Your task to perform on an android device: When is my next meeting? Image 0: 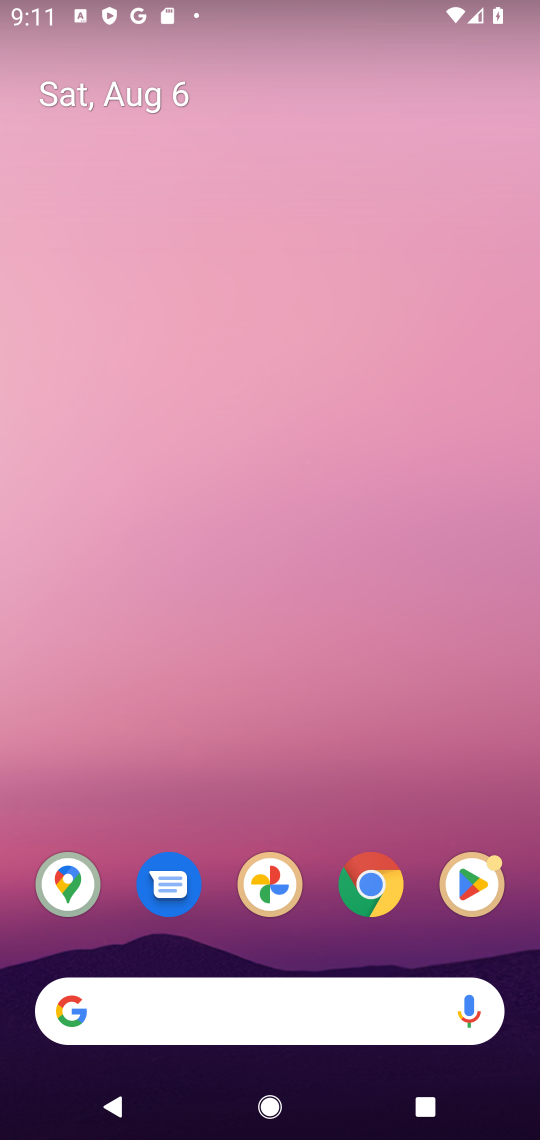
Step 0: drag from (425, 937) to (379, 47)
Your task to perform on an android device: When is my next meeting? Image 1: 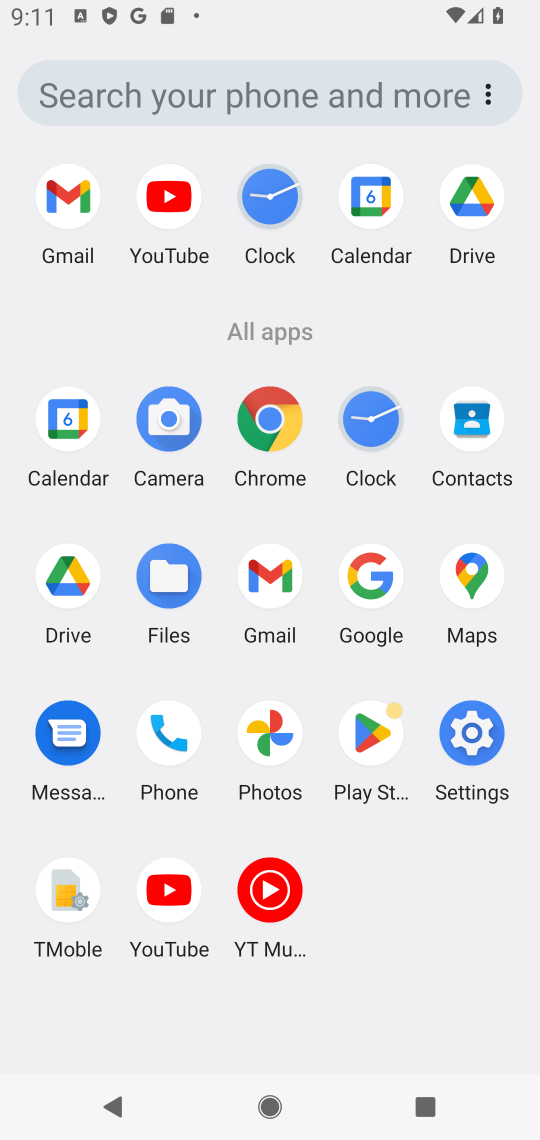
Step 1: click (67, 417)
Your task to perform on an android device: When is my next meeting? Image 2: 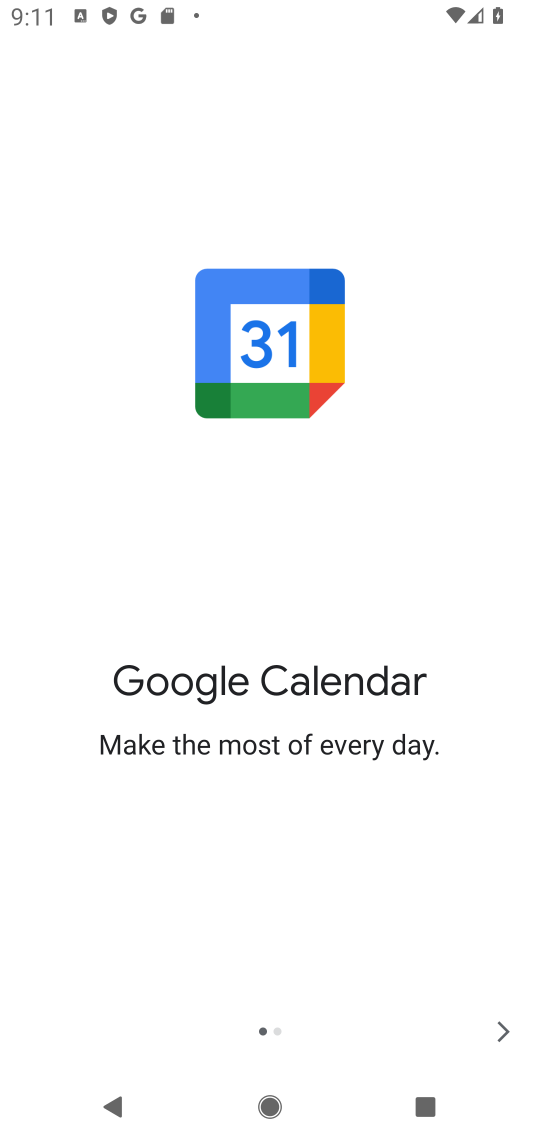
Step 2: click (501, 1025)
Your task to perform on an android device: When is my next meeting? Image 3: 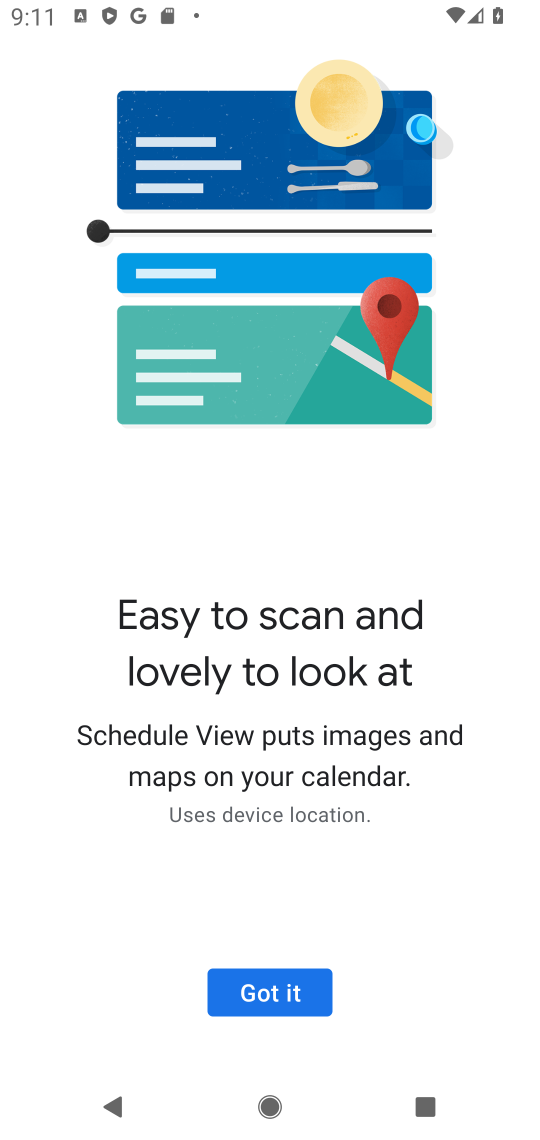
Step 3: click (263, 982)
Your task to perform on an android device: When is my next meeting? Image 4: 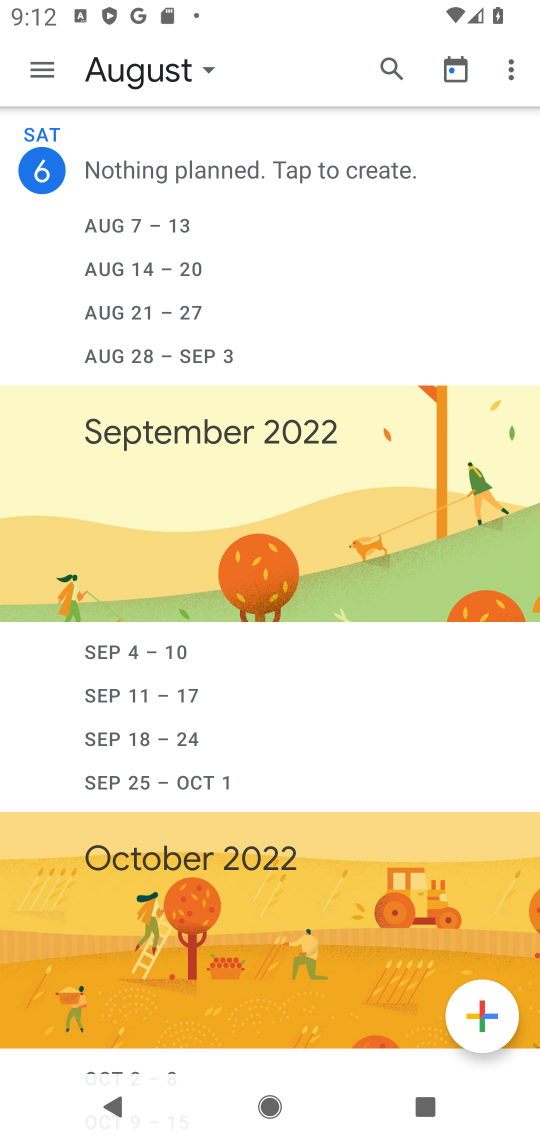
Step 4: task complete